Your task to perform on an android device: Go to Google Image 0: 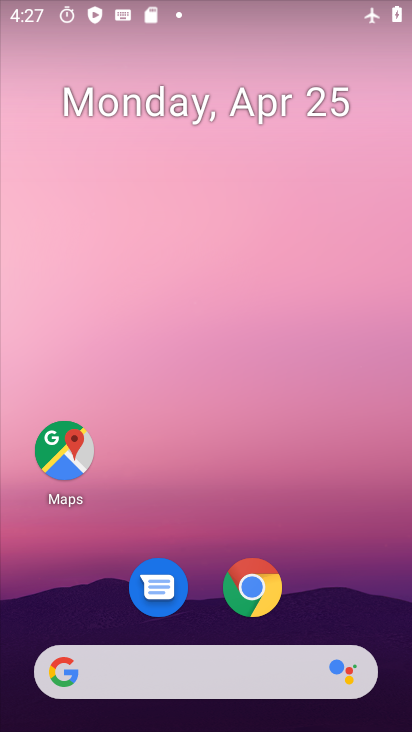
Step 0: drag from (313, 471) to (307, 117)
Your task to perform on an android device: Go to Google Image 1: 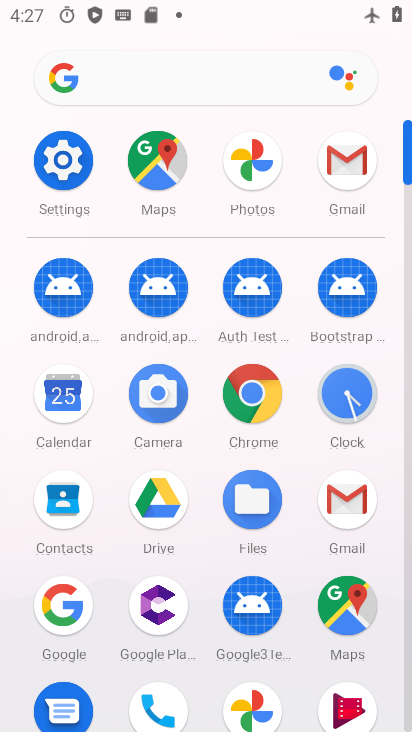
Step 1: click (62, 592)
Your task to perform on an android device: Go to Google Image 2: 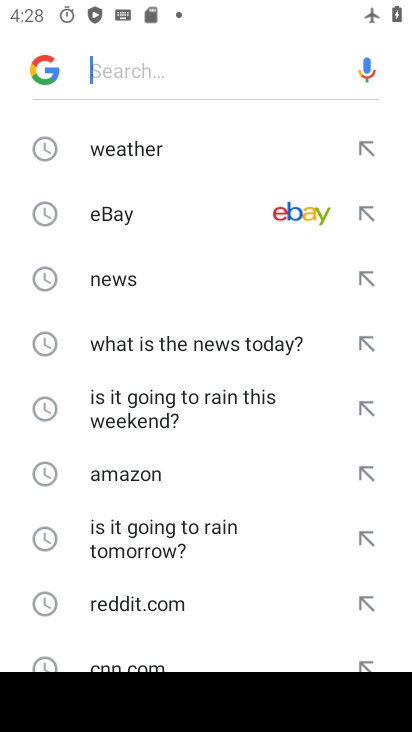
Step 2: task complete